Your task to perform on an android device: open chrome and create a bookmark for the current page Image 0: 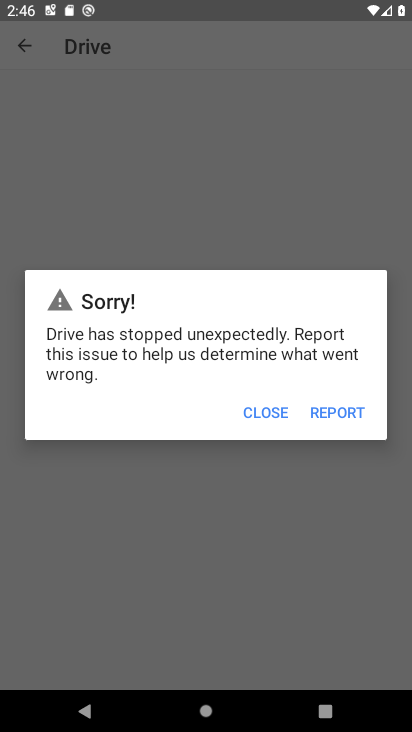
Step 0: press home button
Your task to perform on an android device: open chrome and create a bookmark for the current page Image 1: 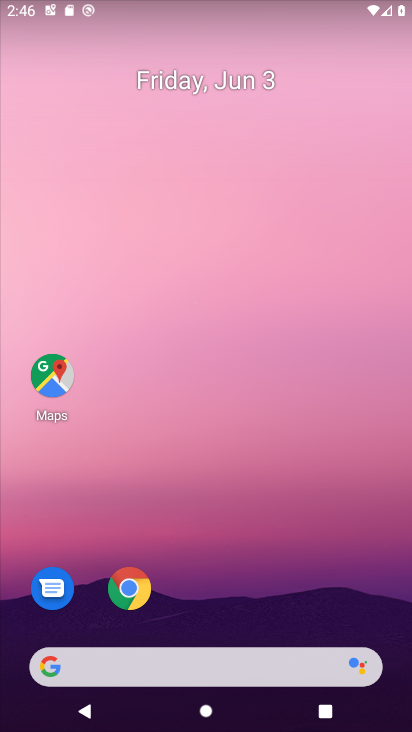
Step 1: drag from (235, 525) to (271, 89)
Your task to perform on an android device: open chrome and create a bookmark for the current page Image 2: 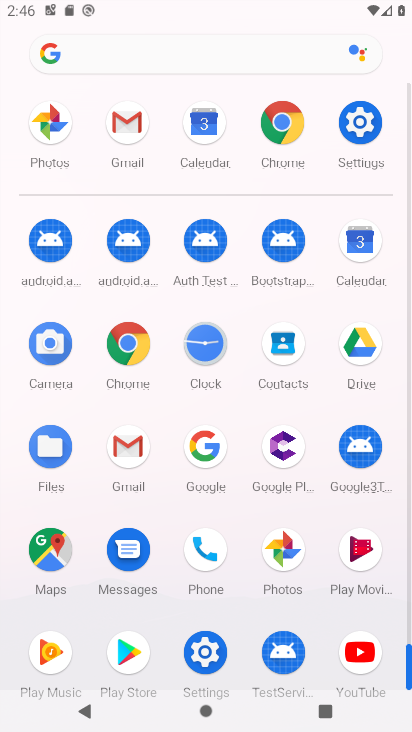
Step 2: click (292, 128)
Your task to perform on an android device: open chrome and create a bookmark for the current page Image 3: 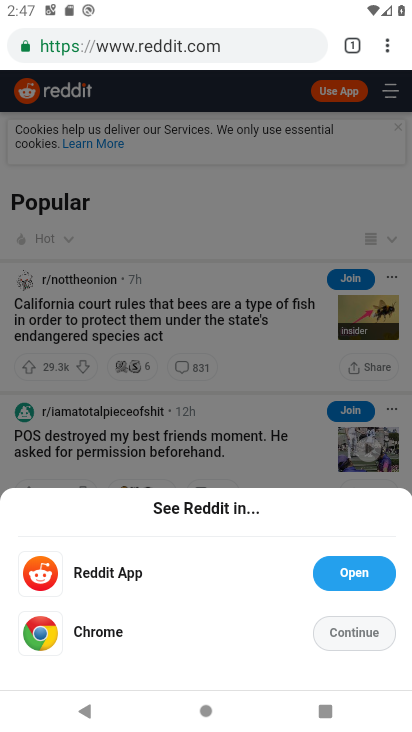
Step 3: click (394, 45)
Your task to perform on an android device: open chrome and create a bookmark for the current page Image 4: 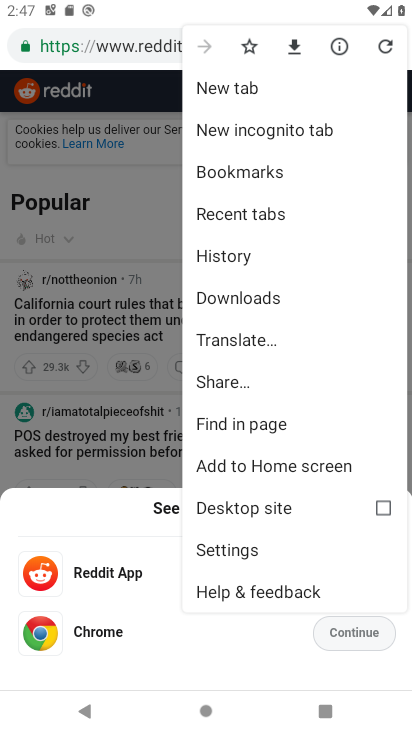
Step 4: click (252, 49)
Your task to perform on an android device: open chrome and create a bookmark for the current page Image 5: 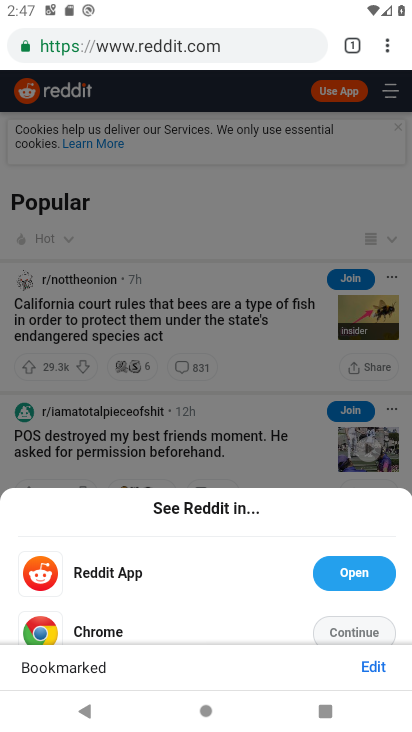
Step 5: task complete